Your task to perform on an android device: Go to battery settings Image 0: 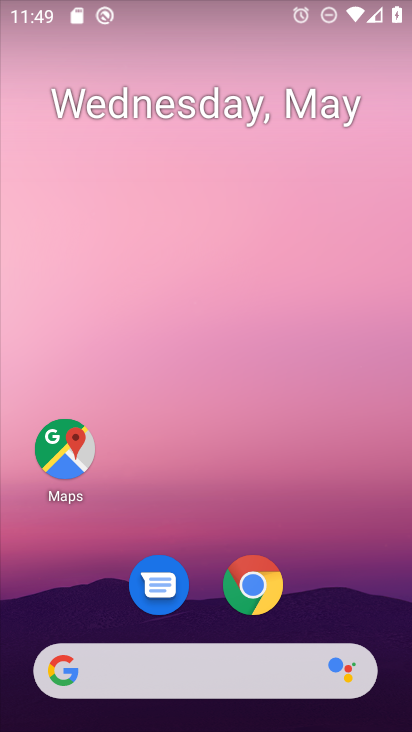
Step 0: drag from (310, 488) to (317, 81)
Your task to perform on an android device: Go to battery settings Image 1: 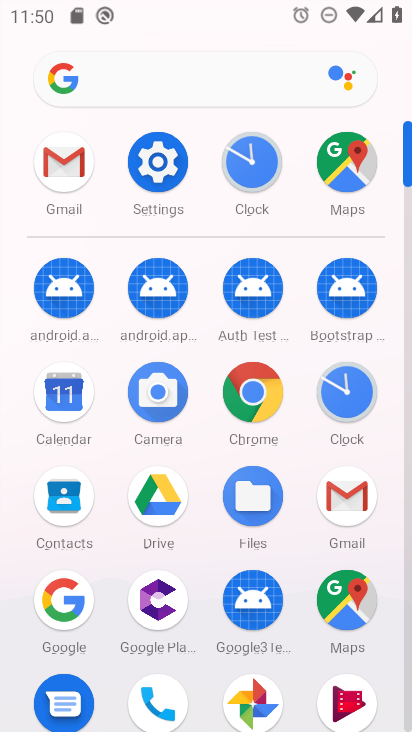
Step 1: click (162, 163)
Your task to perform on an android device: Go to battery settings Image 2: 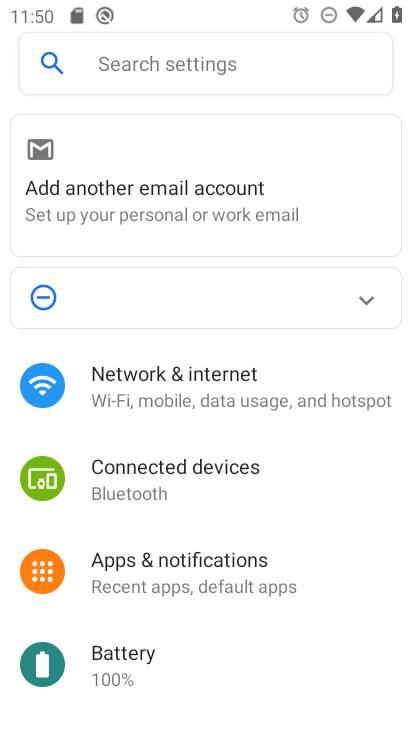
Step 2: click (161, 655)
Your task to perform on an android device: Go to battery settings Image 3: 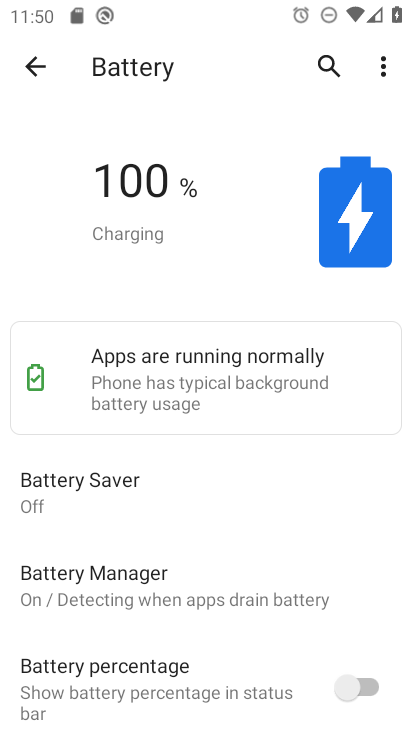
Step 3: task complete